Your task to perform on an android device: turn off smart reply in the gmail app Image 0: 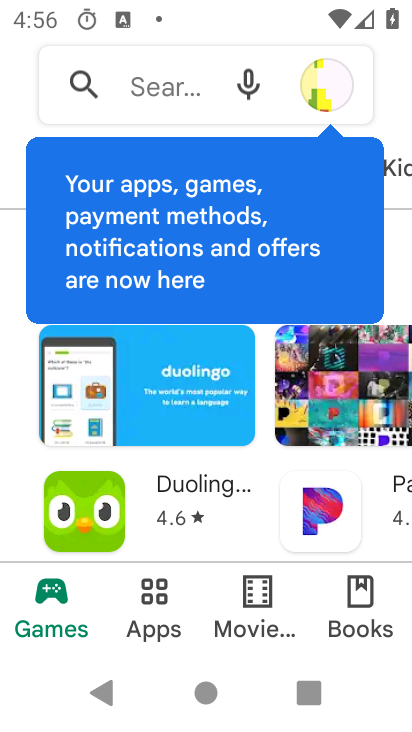
Step 0: press home button
Your task to perform on an android device: turn off smart reply in the gmail app Image 1: 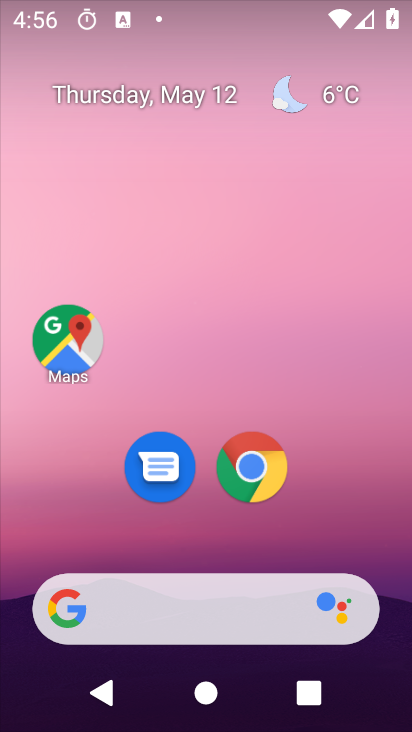
Step 1: drag from (276, 676) to (259, 177)
Your task to perform on an android device: turn off smart reply in the gmail app Image 2: 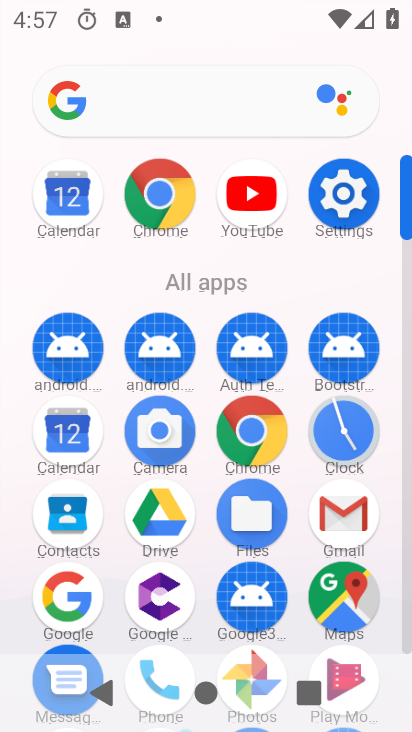
Step 2: click (341, 536)
Your task to perform on an android device: turn off smart reply in the gmail app Image 3: 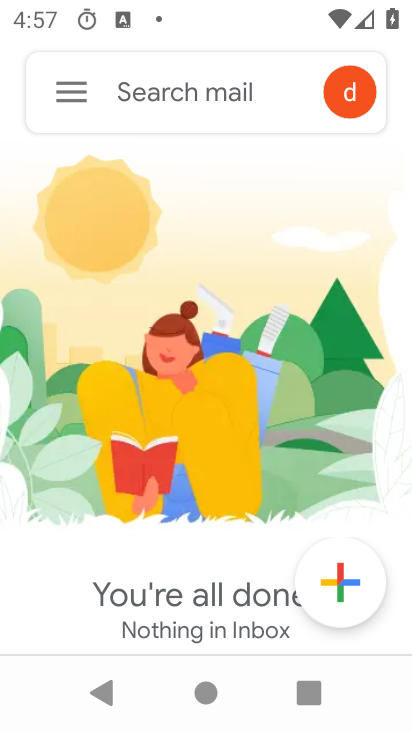
Step 3: click (70, 87)
Your task to perform on an android device: turn off smart reply in the gmail app Image 4: 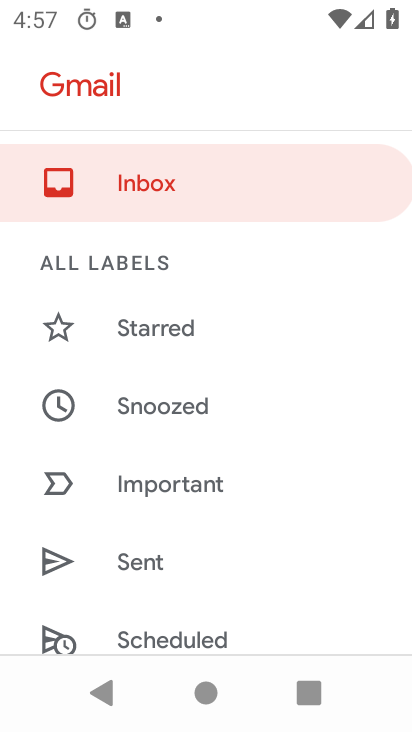
Step 4: drag from (223, 638) to (218, 285)
Your task to perform on an android device: turn off smart reply in the gmail app Image 5: 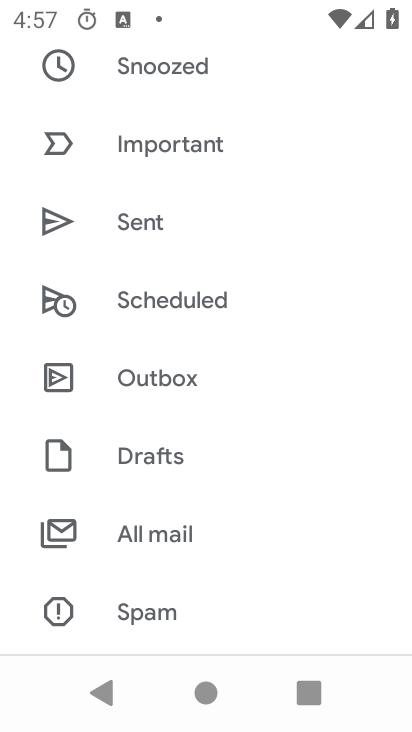
Step 5: drag from (178, 616) to (181, 223)
Your task to perform on an android device: turn off smart reply in the gmail app Image 6: 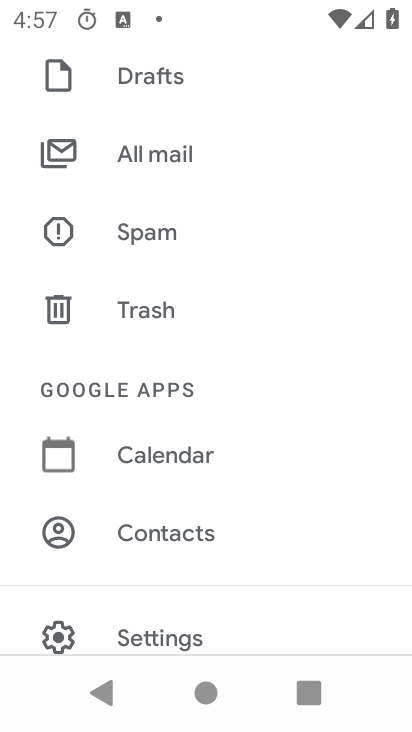
Step 6: drag from (224, 653) to (233, 271)
Your task to perform on an android device: turn off smart reply in the gmail app Image 7: 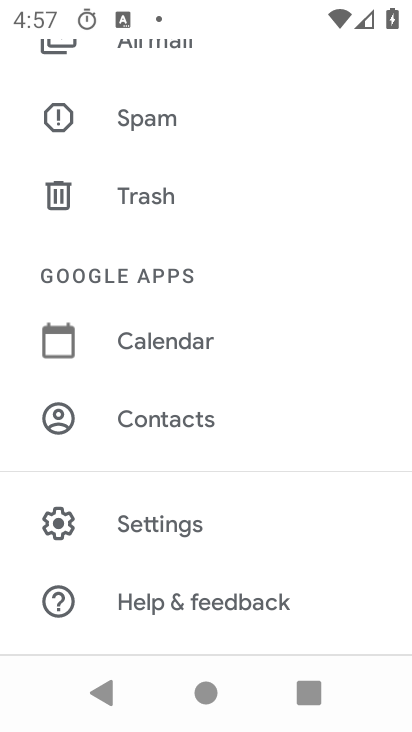
Step 7: click (216, 529)
Your task to perform on an android device: turn off smart reply in the gmail app Image 8: 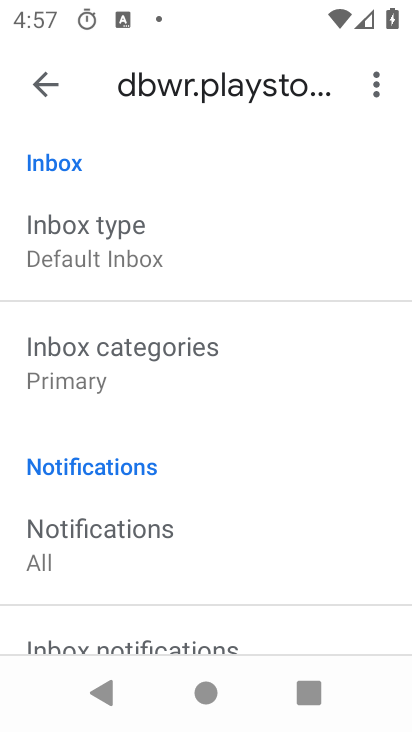
Step 8: drag from (212, 659) to (222, 186)
Your task to perform on an android device: turn off smart reply in the gmail app Image 9: 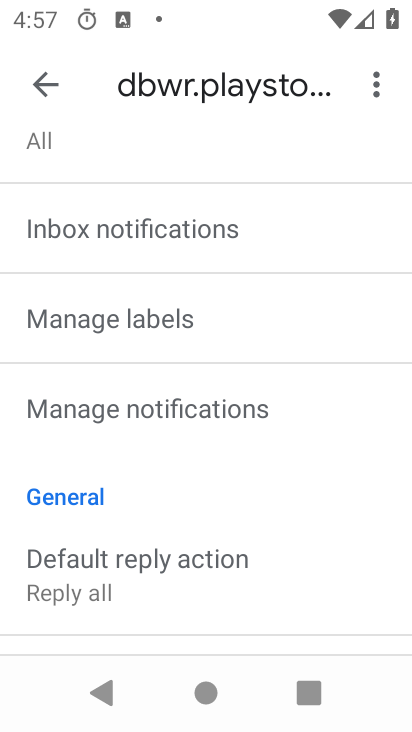
Step 9: drag from (257, 499) to (263, 125)
Your task to perform on an android device: turn off smart reply in the gmail app Image 10: 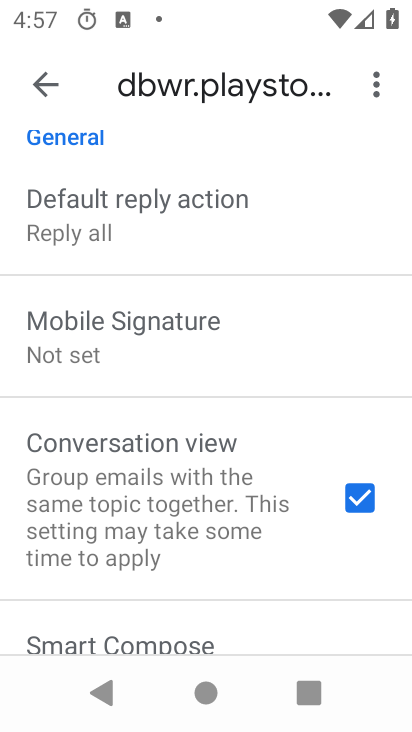
Step 10: drag from (221, 637) to (228, 310)
Your task to perform on an android device: turn off smart reply in the gmail app Image 11: 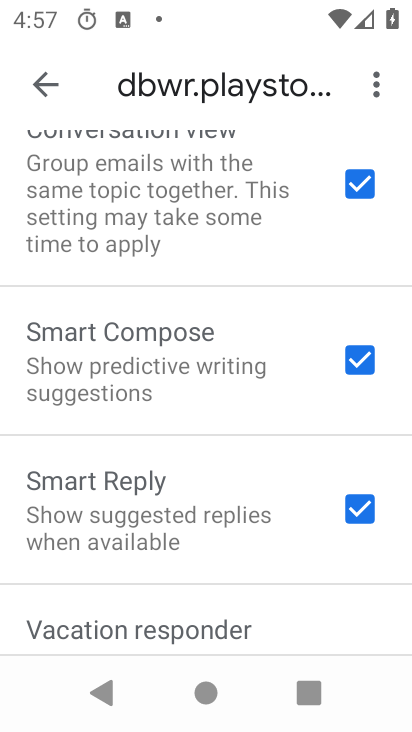
Step 11: click (354, 512)
Your task to perform on an android device: turn off smart reply in the gmail app Image 12: 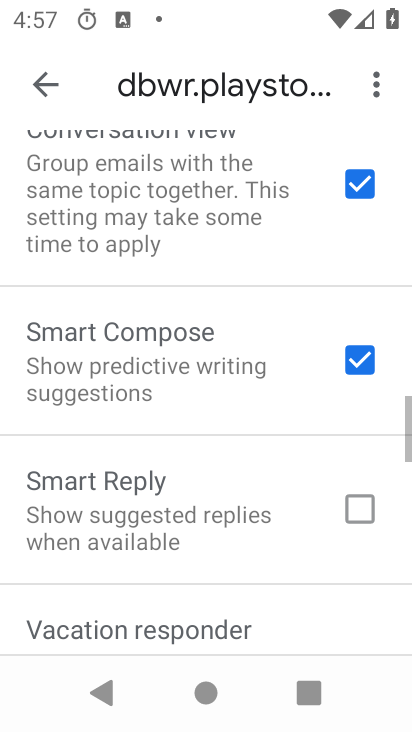
Step 12: task complete